Your task to perform on an android device: Open the web browser Image 0: 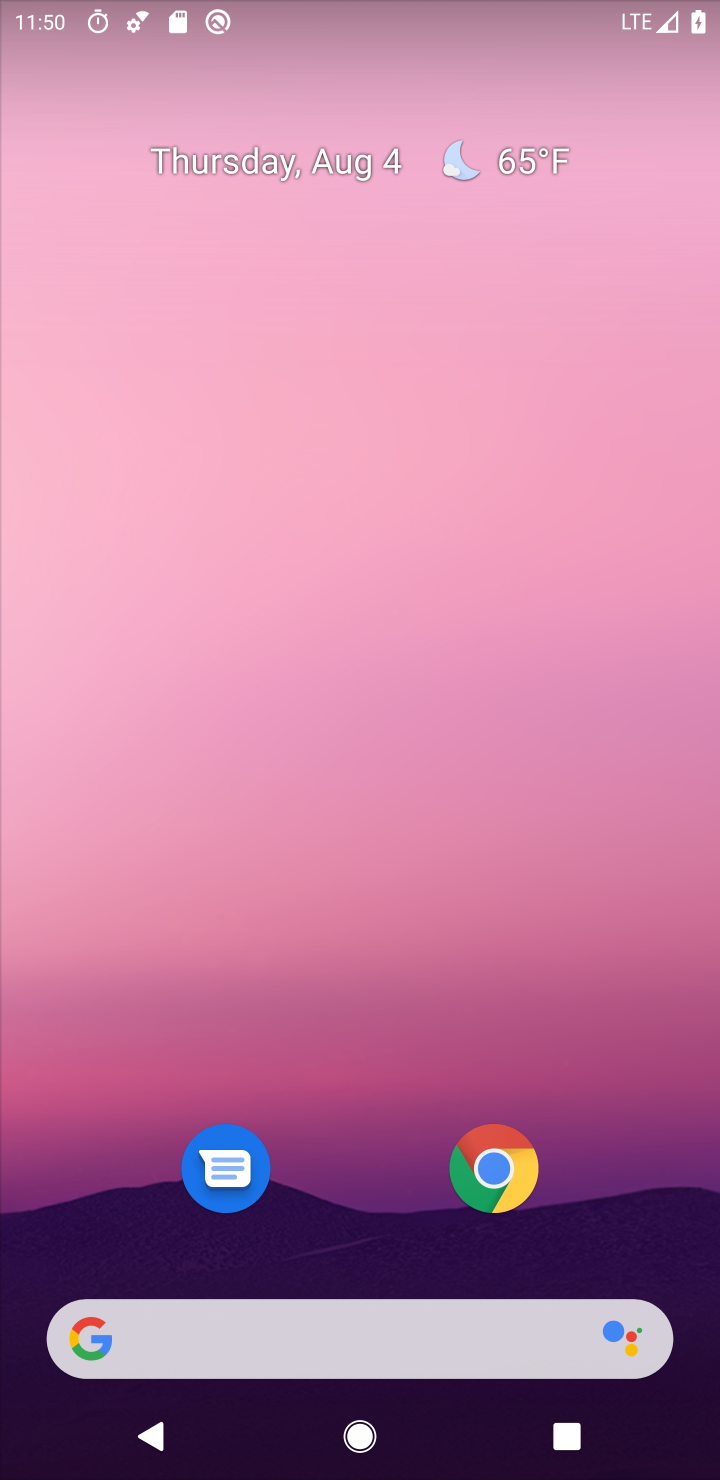
Step 0: click (499, 1187)
Your task to perform on an android device: Open the web browser Image 1: 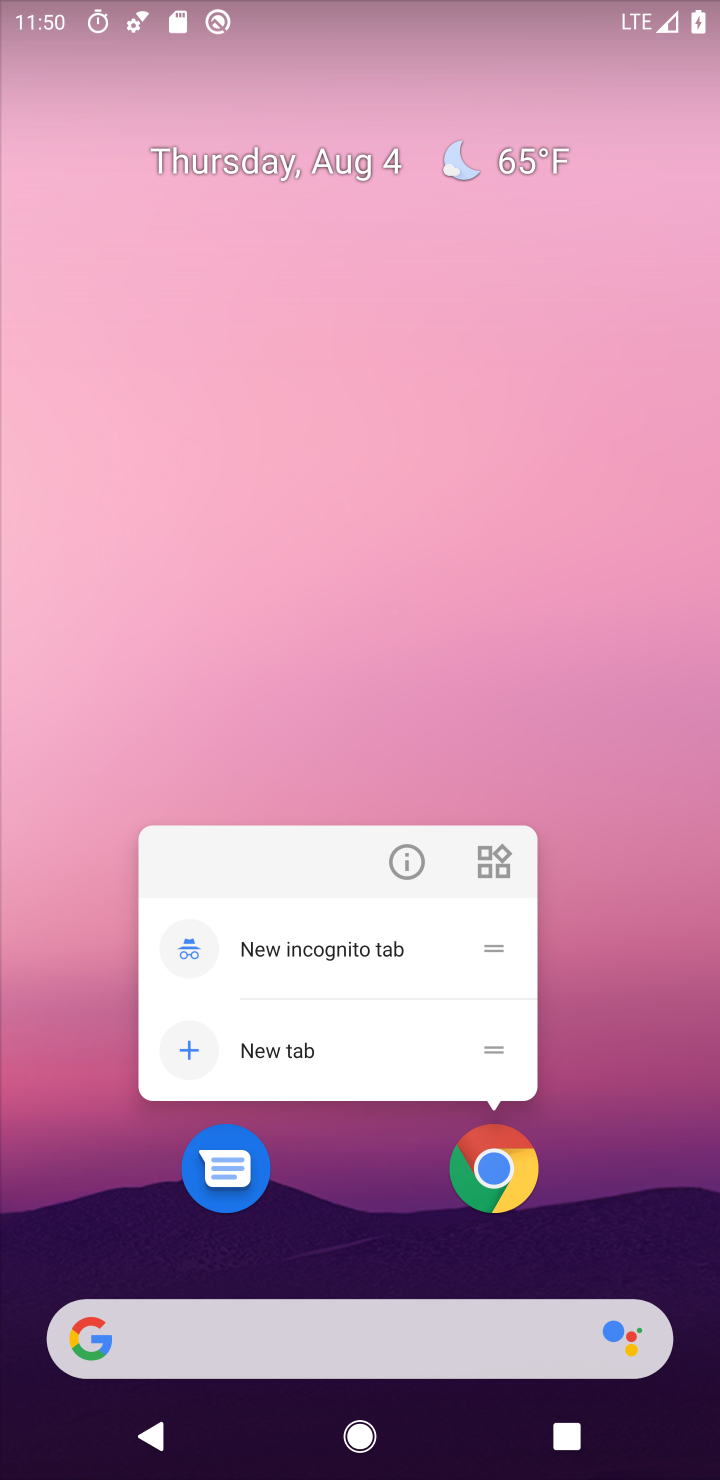
Step 1: click (503, 1187)
Your task to perform on an android device: Open the web browser Image 2: 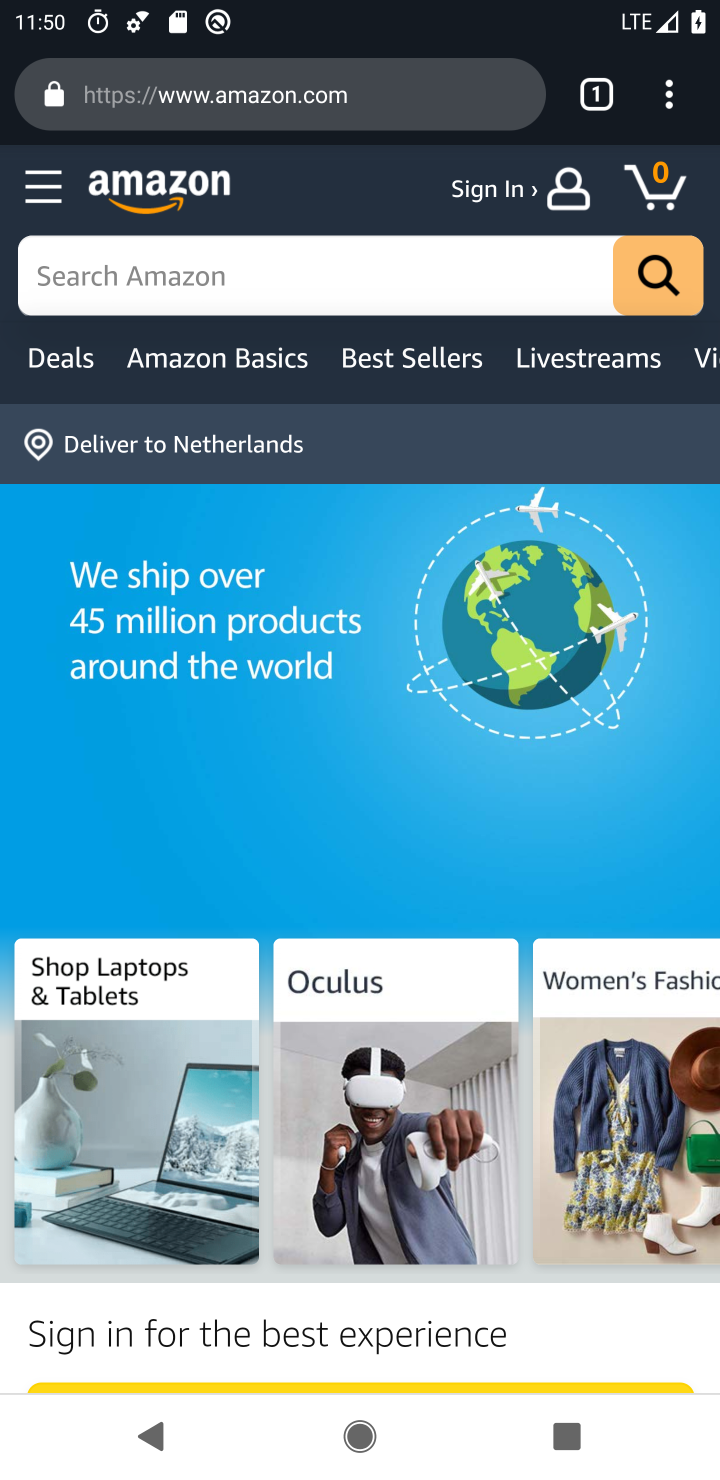
Step 2: task complete